Your task to perform on an android device: find which apps use the phone's location Image 0: 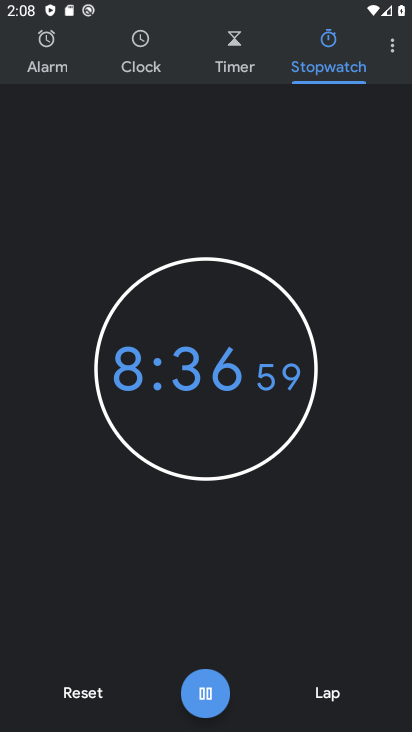
Step 0: press home button
Your task to perform on an android device: find which apps use the phone's location Image 1: 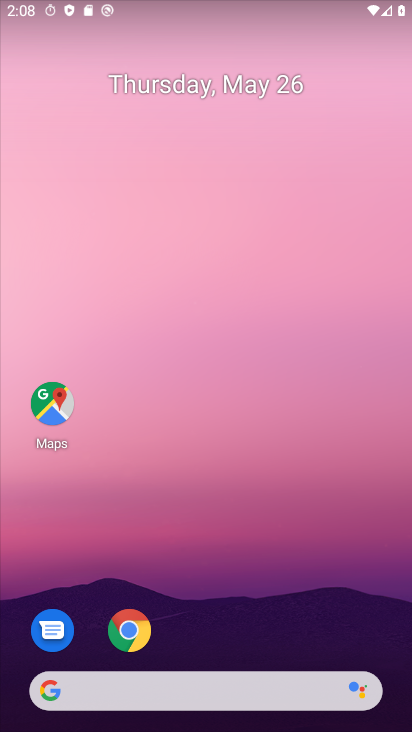
Step 1: drag from (299, 538) to (286, 112)
Your task to perform on an android device: find which apps use the phone's location Image 2: 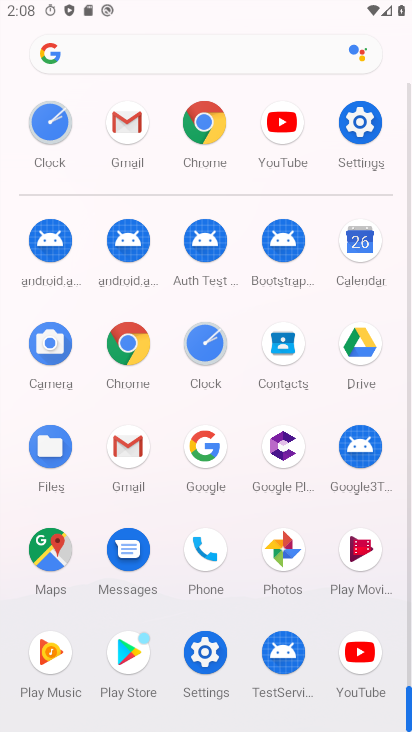
Step 2: click (346, 109)
Your task to perform on an android device: find which apps use the phone's location Image 3: 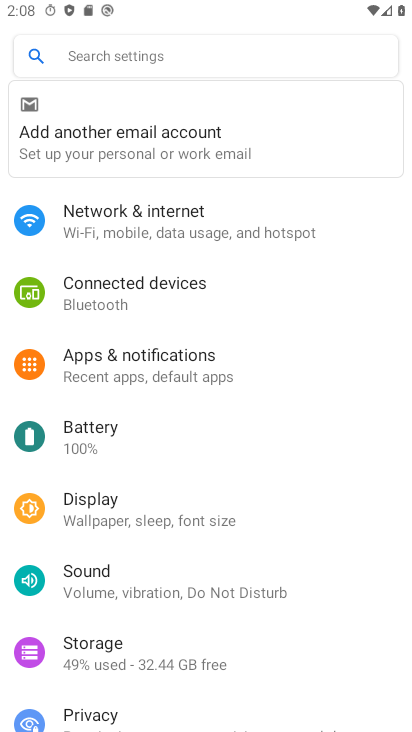
Step 3: drag from (173, 683) to (166, 228)
Your task to perform on an android device: find which apps use the phone's location Image 4: 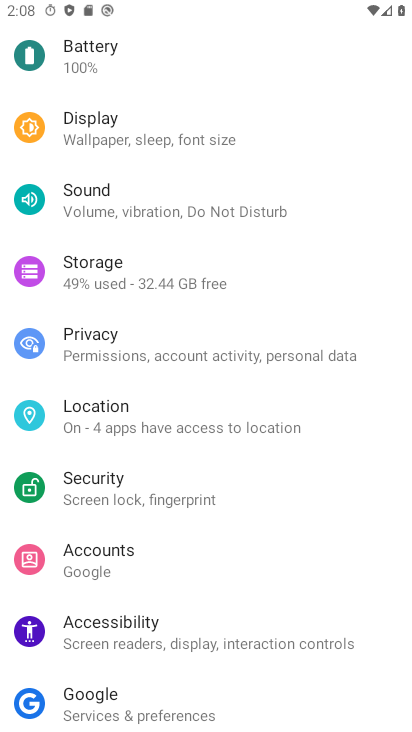
Step 4: click (118, 389)
Your task to perform on an android device: find which apps use the phone's location Image 5: 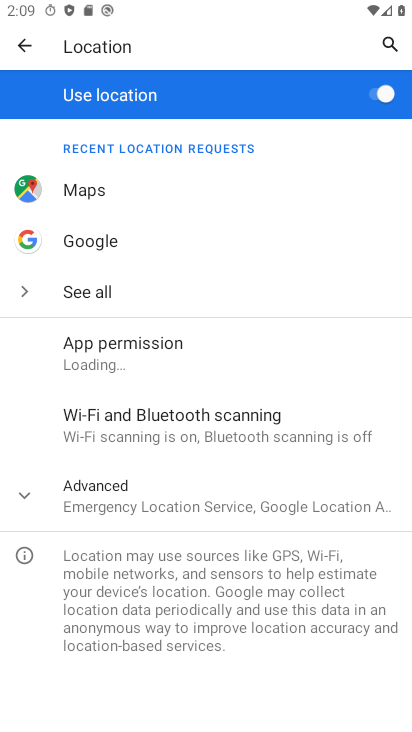
Step 5: click (122, 490)
Your task to perform on an android device: find which apps use the phone's location Image 6: 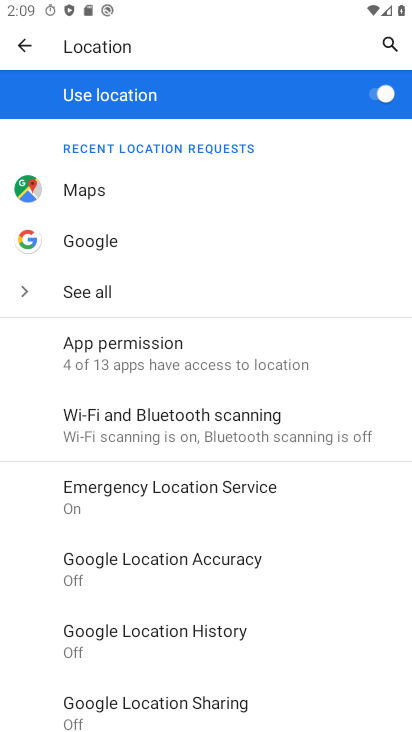
Step 6: task complete